Your task to perform on an android device: Open the stopwatch Image 0: 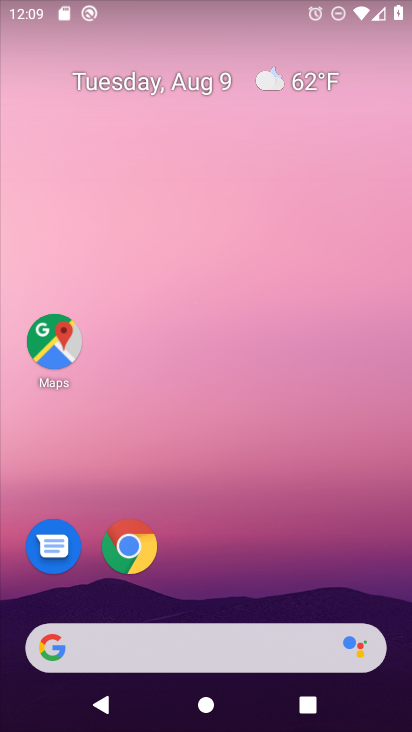
Step 0: press home button
Your task to perform on an android device: Open the stopwatch Image 1: 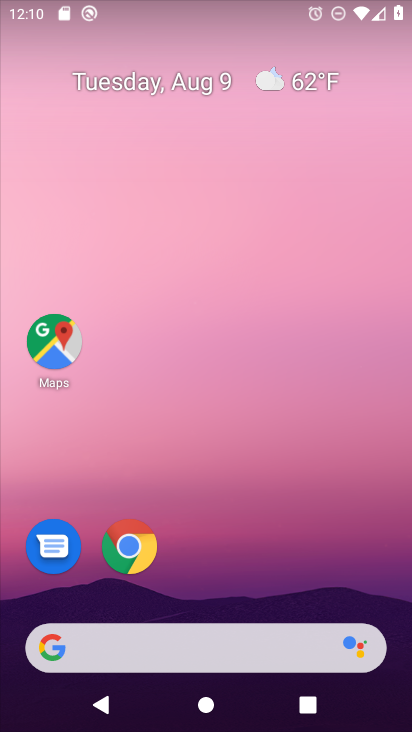
Step 1: drag from (232, 551) to (283, 7)
Your task to perform on an android device: Open the stopwatch Image 2: 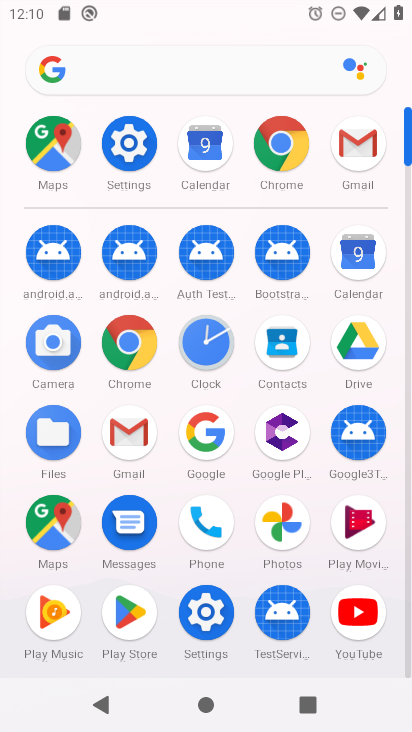
Step 2: click (202, 334)
Your task to perform on an android device: Open the stopwatch Image 3: 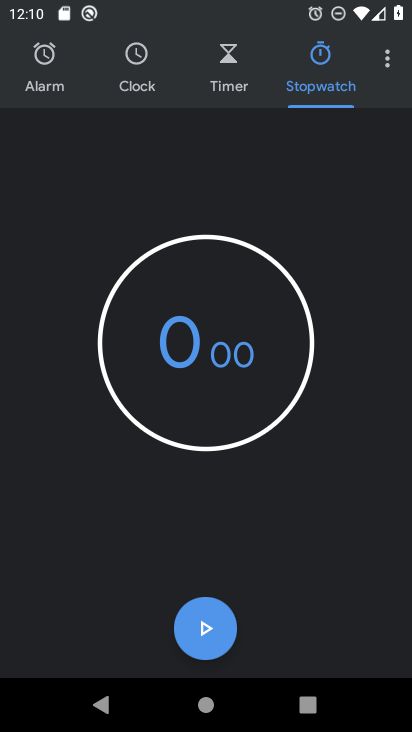
Step 3: click (202, 621)
Your task to perform on an android device: Open the stopwatch Image 4: 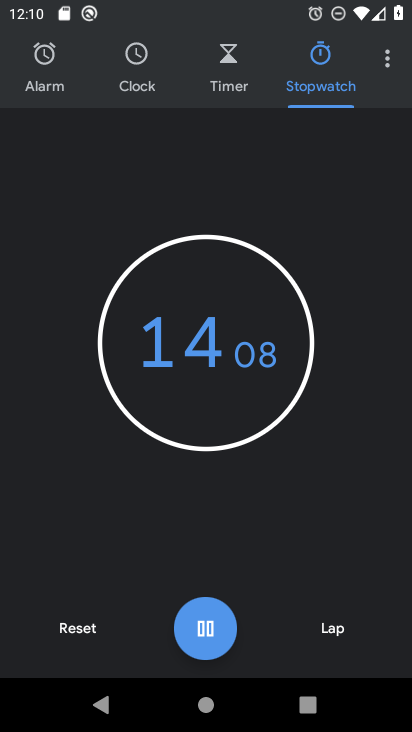
Step 4: task complete